Your task to perform on an android device: delete the emails in spam in the gmail app Image 0: 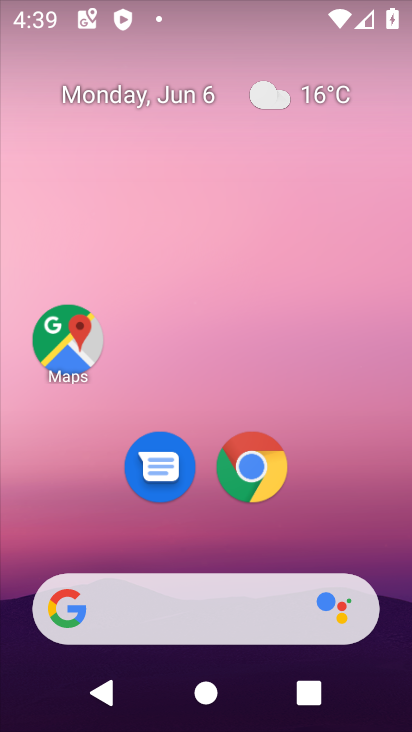
Step 0: drag from (98, 518) to (178, 119)
Your task to perform on an android device: delete the emails in spam in the gmail app Image 1: 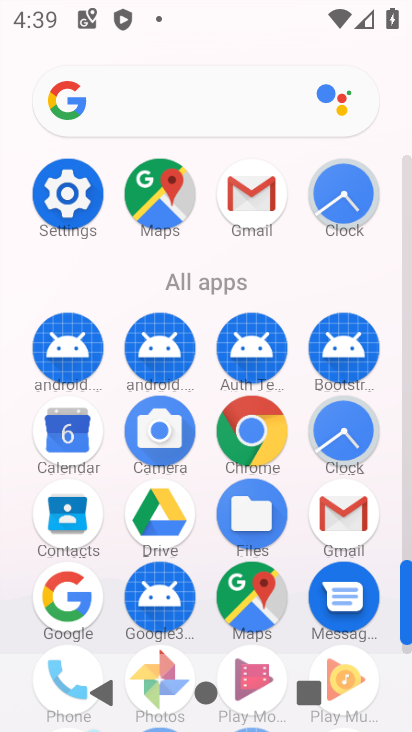
Step 1: click (345, 516)
Your task to perform on an android device: delete the emails in spam in the gmail app Image 2: 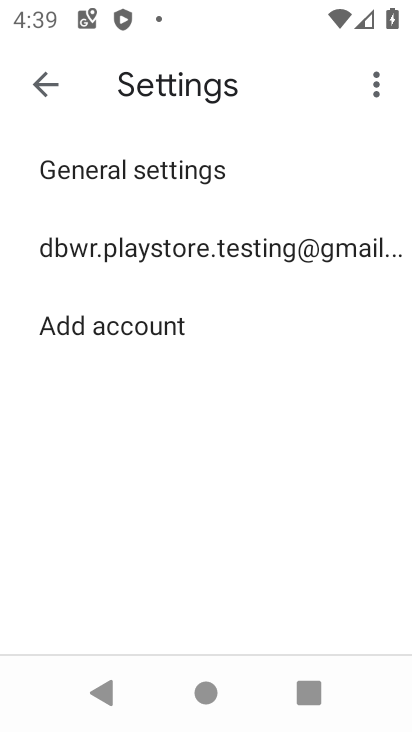
Step 2: click (45, 84)
Your task to perform on an android device: delete the emails in spam in the gmail app Image 3: 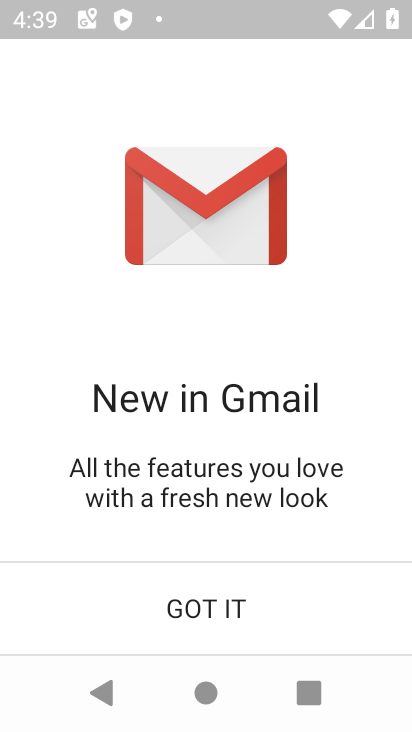
Step 3: click (276, 604)
Your task to perform on an android device: delete the emails in spam in the gmail app Image 4: 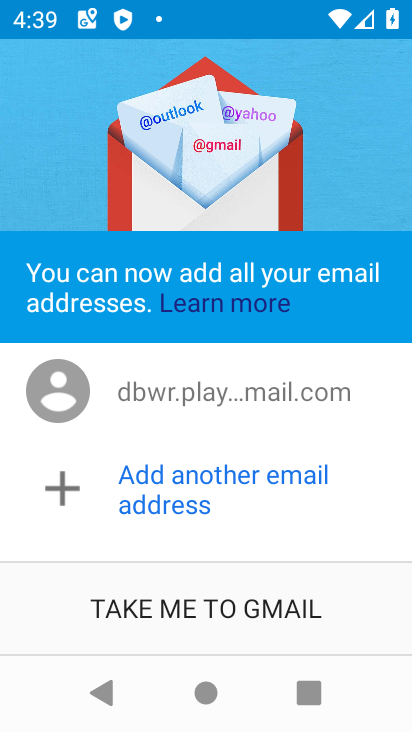
Step 4: click (290, 600)
Your task to perform on an android device: delete the emails in spam in the gmail app Image 5: 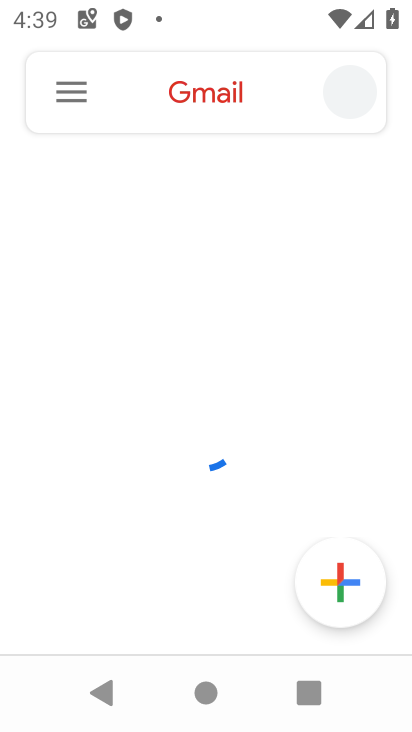
Step 5: click (82, 91)
Your task to perform on an android device: delete the emails in spam in the gmail app Image 6: 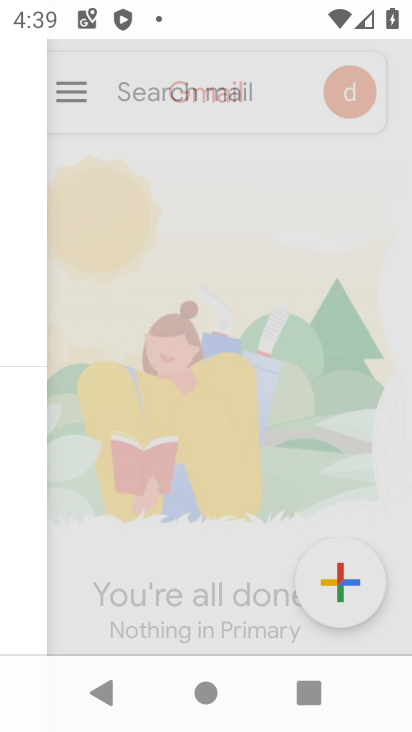
Step 6: drag from (218, 303) to (195, 491)
Your task to perform on an android device: delete the emails in spam in the gmail app Image 7: 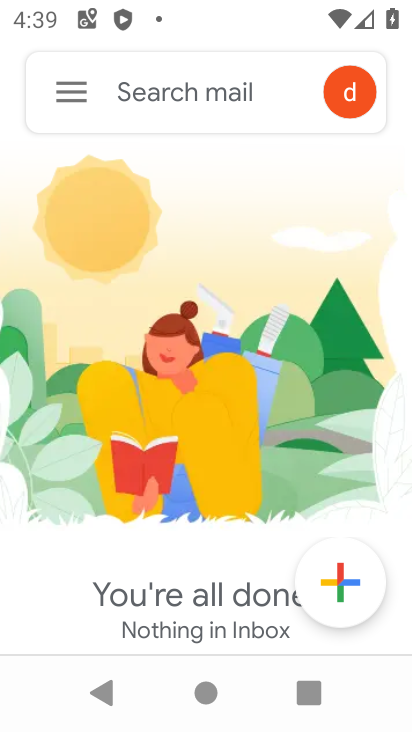
Step 7: click (81, 108)
Your task to perform on an android device: delete the emails in spam in the gmail app Image 8: 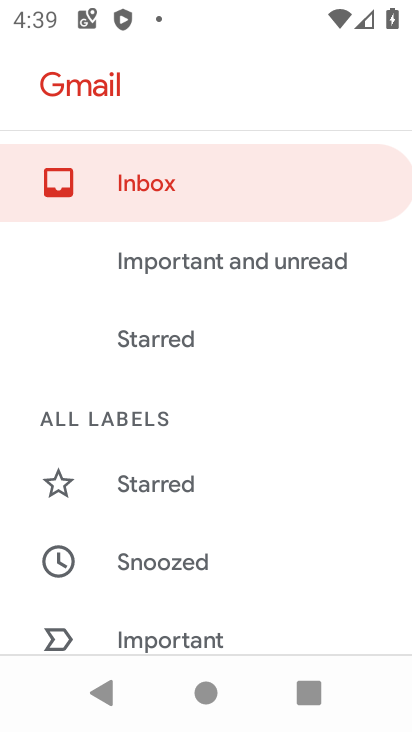
Step 8: drag from (226, 551) to (333, 78)
Your task to perform on an android device: delete the emails in spam in the gmail app Image 9: 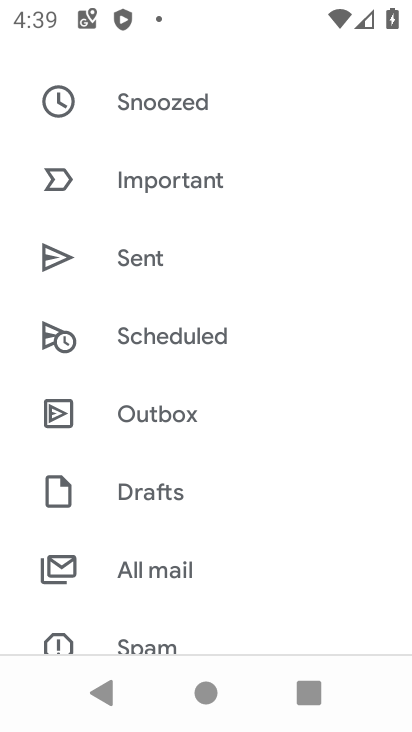
Step 9: drag from (232, 509) to (294, 202)
Your task to perform on an android device: delete the emails in spam in the gmail app Image 10: 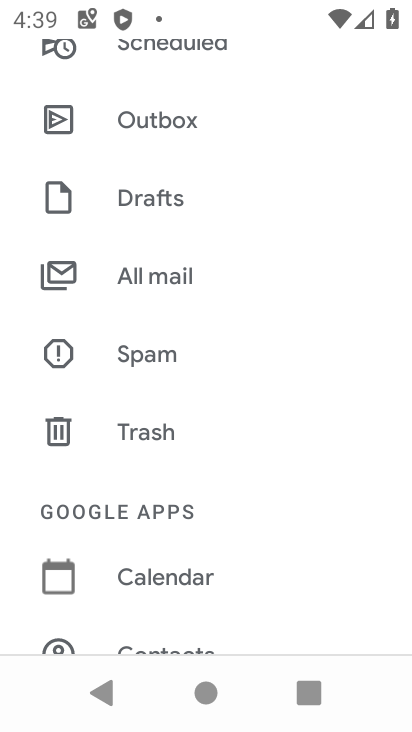
Step 10: click (237, 364)
Your task to perform on an android device: delete the emails in spam in the gmail app Image 11: 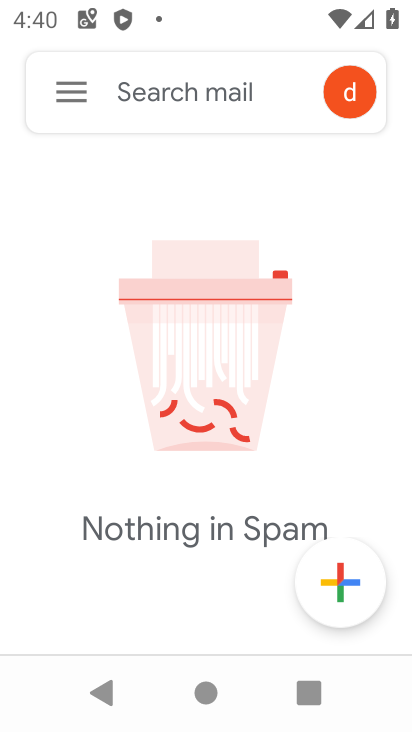
Step 11: task complete